Your task to perform on an android device: View the shopping cart on ebay. Add "usb-c" to the cart on ebay, then select checkout. Image 0: 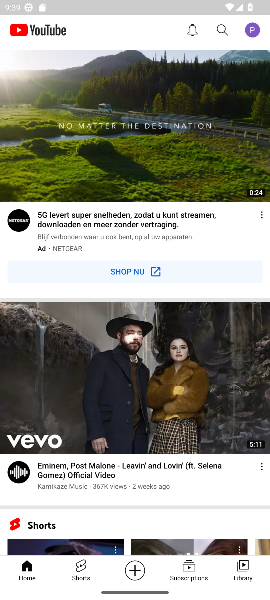
Step 0: press home button
Your task to perform on an android device: View the shopping cart on ebay. Add "usb-c" to the cart on ebay, then select checkout. Image 1: 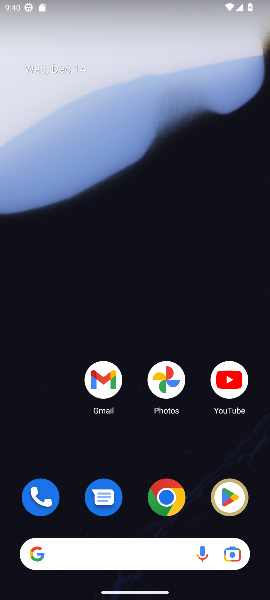
Step 1: click (168, 503)
Your task to perform on an android device: View the shopping cart on ebay. Add "usb-c" to the cart on ebay, then select checkout. Image 2: 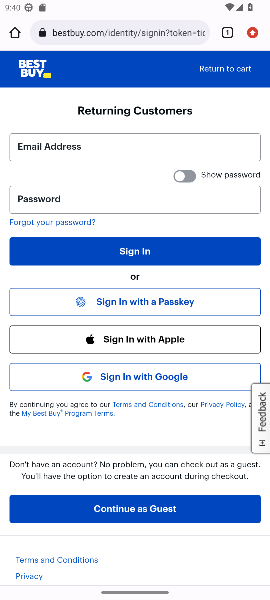
Step 2: click (86, 26)
Your task to perform on an android device: View the shopping cart on ebay. Add "usb-c" to the cart on ebay, then select checkout. Image 3: 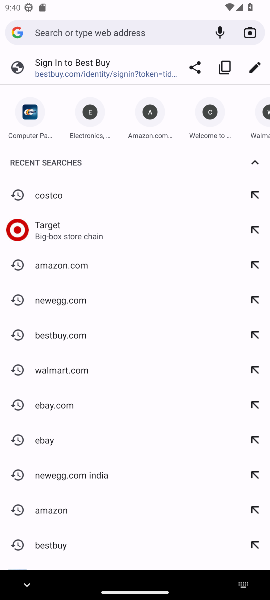
Step 3: type "ebay"
Your task to perform on an android device: View the shopping cart on ebay. Add "usb-c" to the cart on ebay, then select checkout. Image 4: 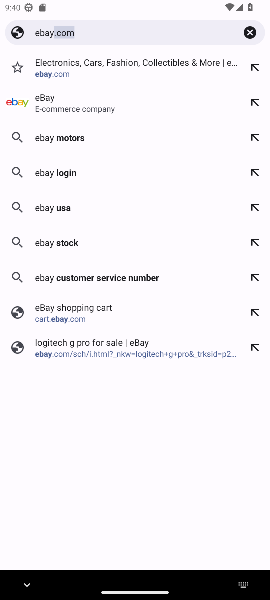
Step 4: click (68, 71)
Your task to perform on an android device: View the shopping cart on ebay. Add "usb-c" to the cart on ebay, then select checkout. Image 5: 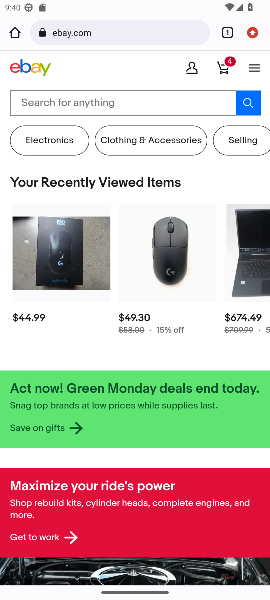
Step 5: click (224, 64)
Your task to perform on an android device: View the shopping cart on ebay. Add "usb-c" to the cart on ebay, then select checkout. Image 6: 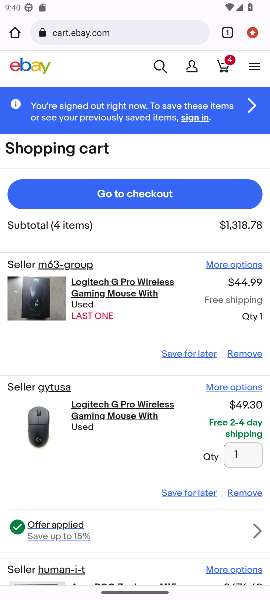
Step 6: click (238, 356)
Your task to perform on an android device: View the shopping cart on ebay. Add "usb-c" to the cart on ebay, then select checkout. Image 7: 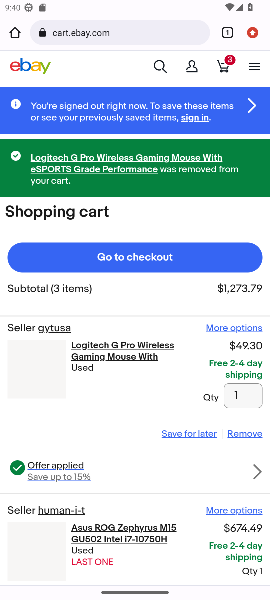
Step 7: click (240, 433)
Your task to perform on an android device: View the shopping cart on ebay. Add "usb-c" to the cart on ebay, then select checkout. Image 8: 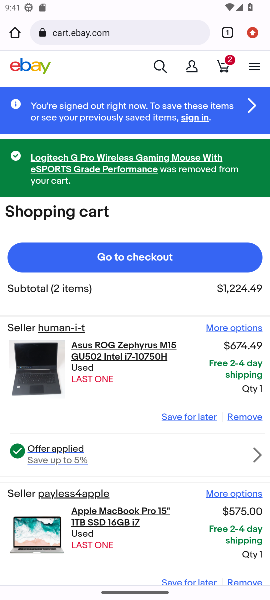
Step 8: click (239, 419)
Your task to perform on an android device: View the shopping cart on ebay. Add "usb-c" to the cart on ebay, then select checkout. Image 9: 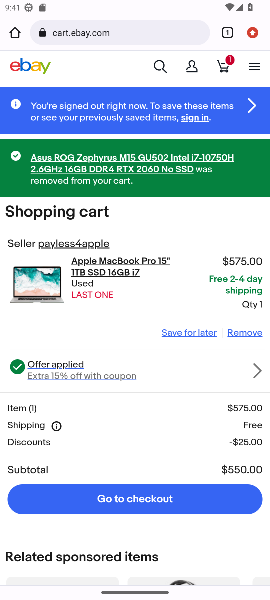
Step 9: click (241, 334)
Your task to perform on an android device: View the shopping cart on ebay. Add "usb-c" to the cart on ebay, then select checkout. Image 10: 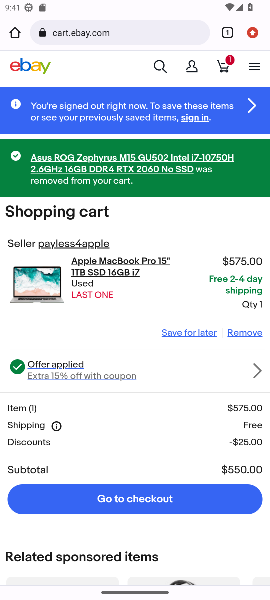
Step 10: click (241, 334)
Your task to perform on an android device: View the shopping cart on ebay. Add "usb-c" to the cart on ebay, then select checkout. Image 11: 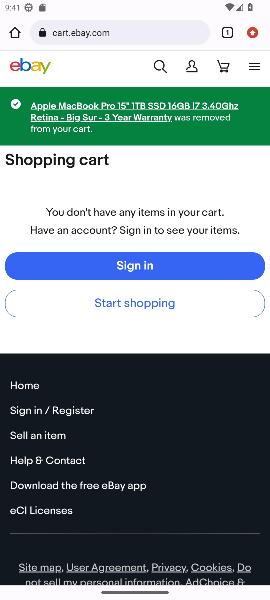
Step 11: click (159, 69)
Your task to perform on an android device: View the shopping cart on ebay. Add "usb-c" to the cart on ebay, then select checkout. Image 12: 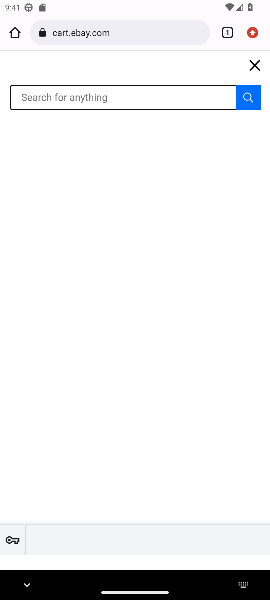
Step 12: type "usb-c"
Your task to perform on an android device: View the shopping cart on ebay. Add "usb-c" to the cart on ebay, then select checkout. Image 13: 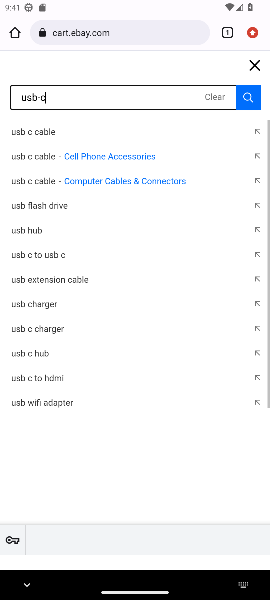
Step 13: click (242, 95)
Your task to perform on an android device: View the shopping cart on ebay. Add "usb-c" to the cart on ebay, then select checkout. Image 14: 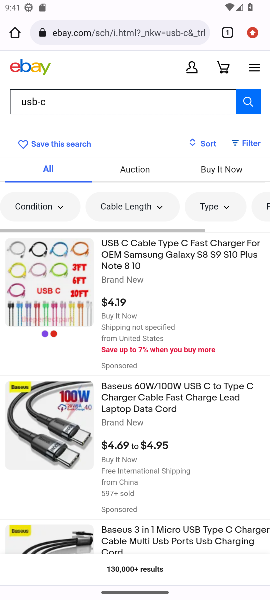
Step 14: click (169, 253)
Your task to perform on an android device: View the shopping cart on ebay. Add "usb-c" to the cart on ebay, then select checkout. Image 15: 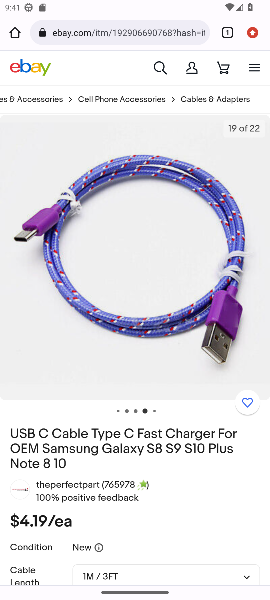
Step 15: drag from (174, 496) to (165, 127)
Your task to perform on an android device: View the shopping cart on ebay. Add "usb-c" to the cart on ebay, then select checkout. Image 16: 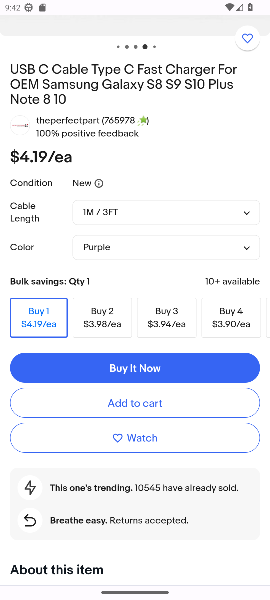
Step 16: click (155, 406)
Your task to perform on an android device: View the shopping cart on ebay. Add "usb-c" to the cart on ebay, then select checkout. Image 17: 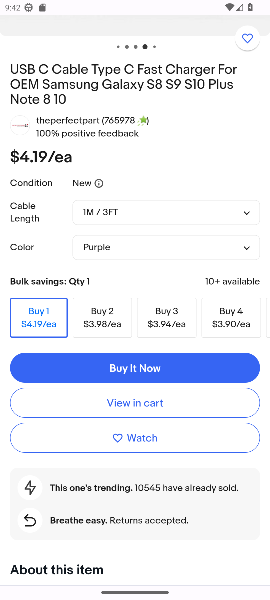
Step 17: click (214, 404)
Your task to perform on an android device: View the shopping cart on ebay. Add "usb-c" to the cart on ebay, then select checkout. Image 18: 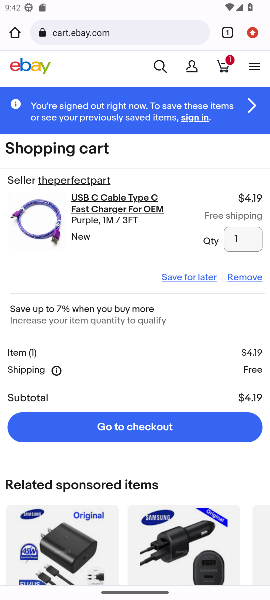
Step 18: task complete